Your task to perform on an android device: toggle airplane mode Image 0: 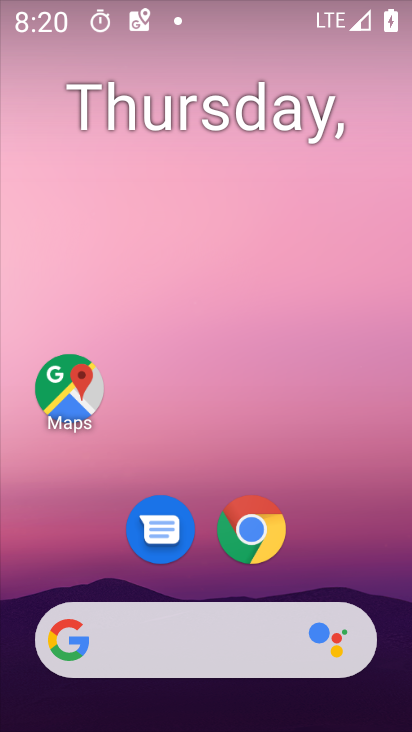
Step 0: drag from (378, 567) to (352, 201)
Your task to perform on an android device: toggle airplane mode Image 1: 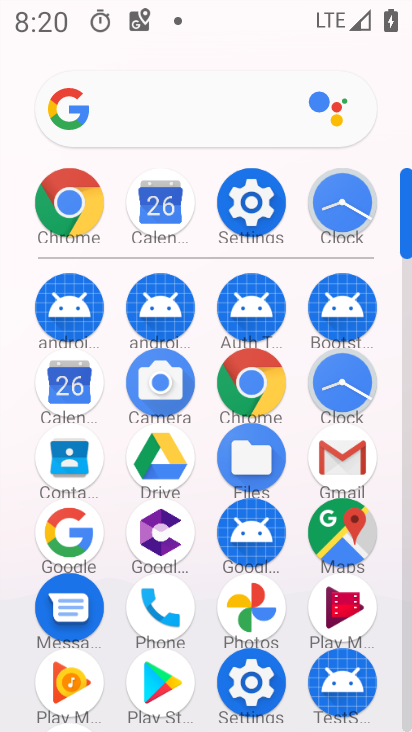
Step 1: click (265, 226)
Your task to perform on an android device: toggle airplane mode Image 2: 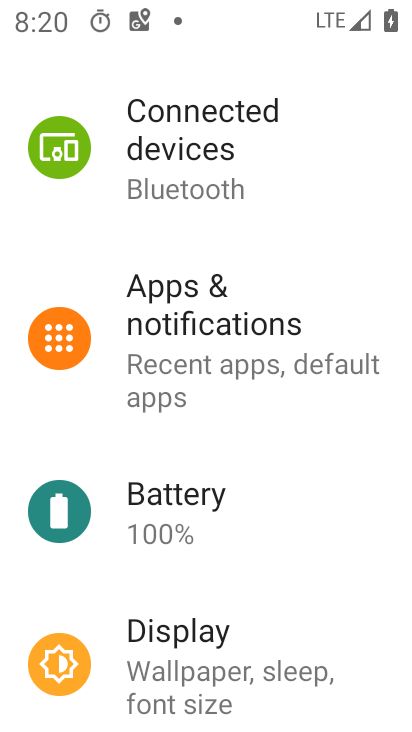
Step 2: drag from (287, 201) to (285, 307)
Your task to perform on an android device: toggle airplane mode Image 3: 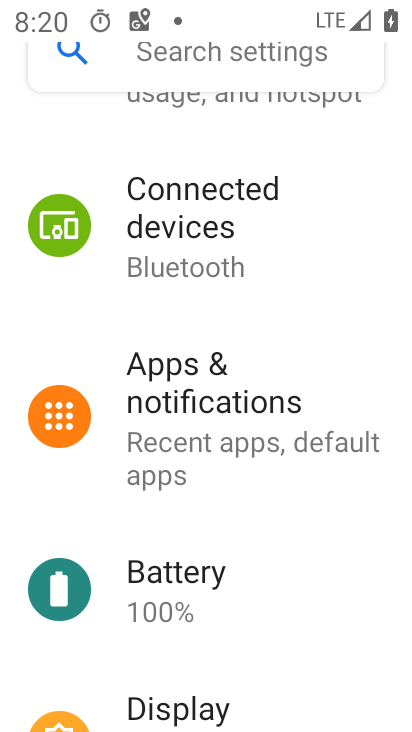
Step 3: drag from (313, 186) to (316, 281)
Your task to perform on an android device: toggle airplane mode Image 4: 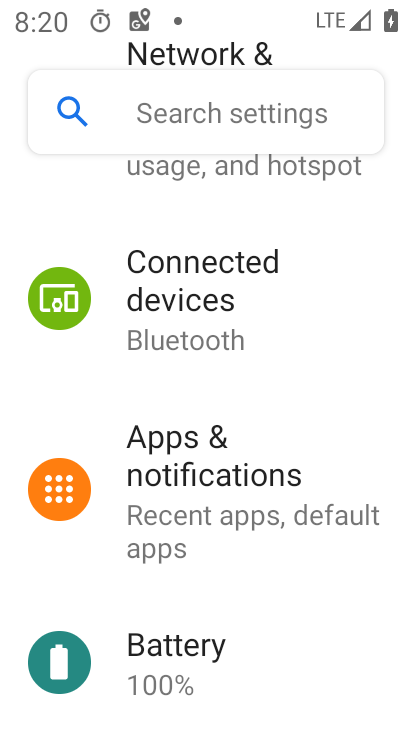
Step 4: drag from (313, 215) to (325, 312)
Your task to perform on an android device: toggle airplane mode Image 5: 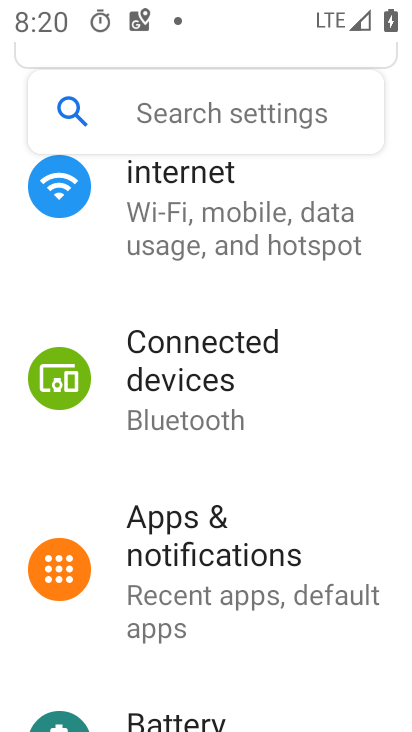
Step 5: drag from (377, 192) to (388, 309)
Your task to perform on an android device: toggle airplane mode Image 6: 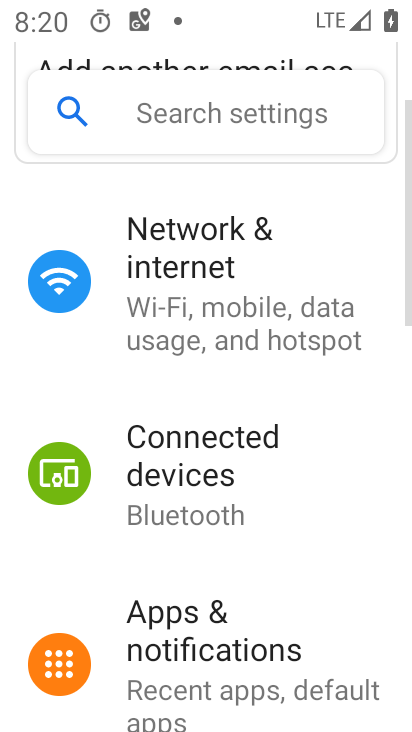
Step 6: click (218, 300)
Your task to perform on an android device: toggle airplane mode Image 7: 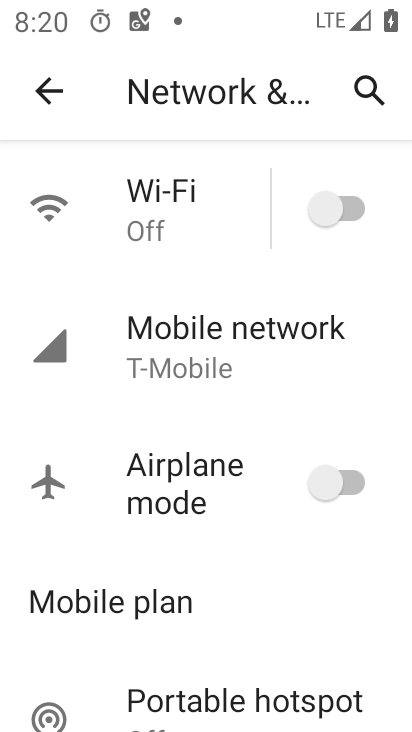
Step 7: click (316, 494)
Your task to perform on an android device: toggle airplane mode Image 8: 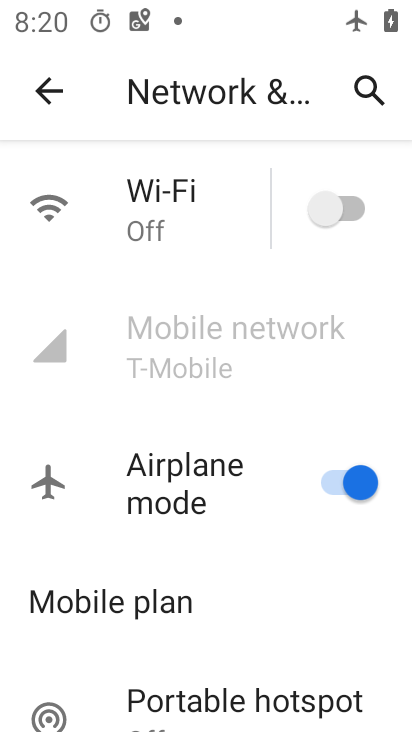
Step 8: task complete